Your task to perform on an android device: What's the weather going to be this weekend? Image 0: 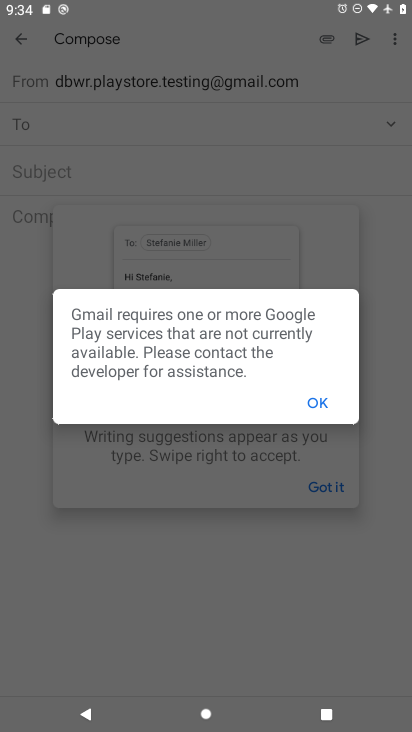
Step 0: press home button
Your task to perform on an android device: What's the weather going to be this weekend? Image 1: 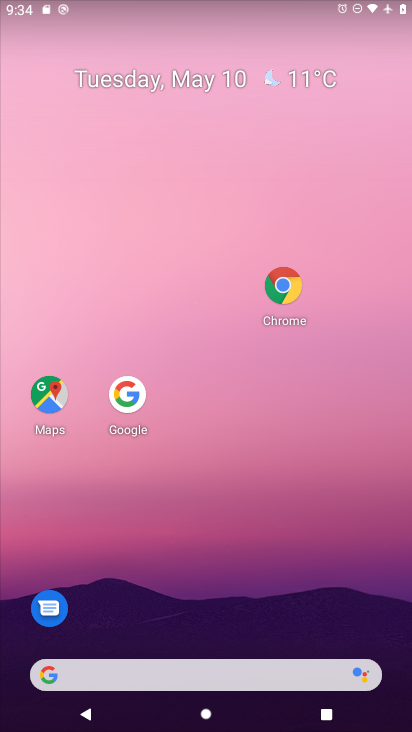
Step 1: click (301, 75)
Your task to perform on an android device: What's the weather going to be this weekend? Image 2: 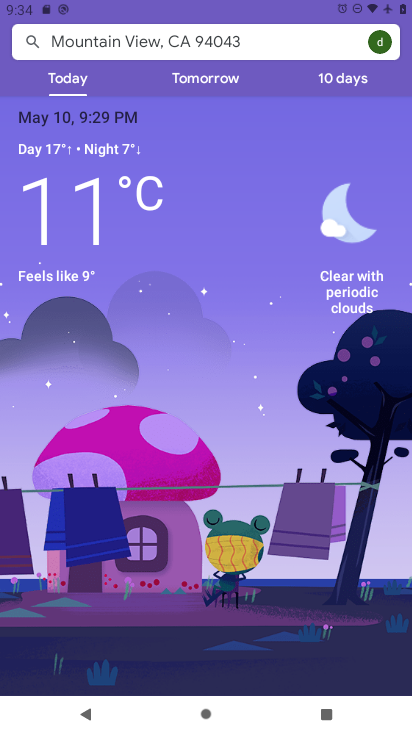
Step 2: click (347, 74)
Your task to perform on an android device: What's the weather going to be this weekend? Image 3: 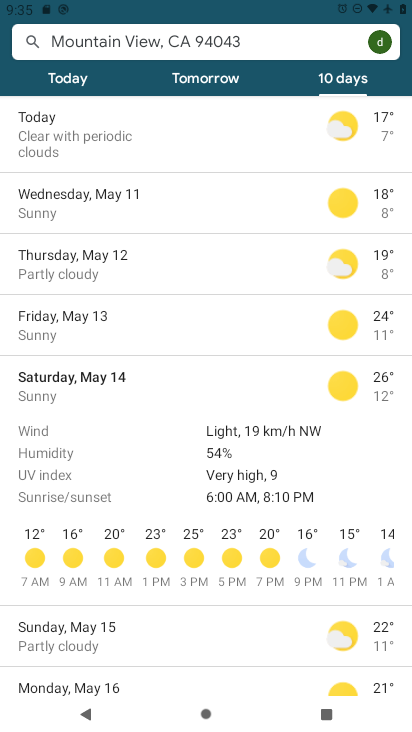
Step 3: task complete